Your task to perform on an android device: check android version Image 0: 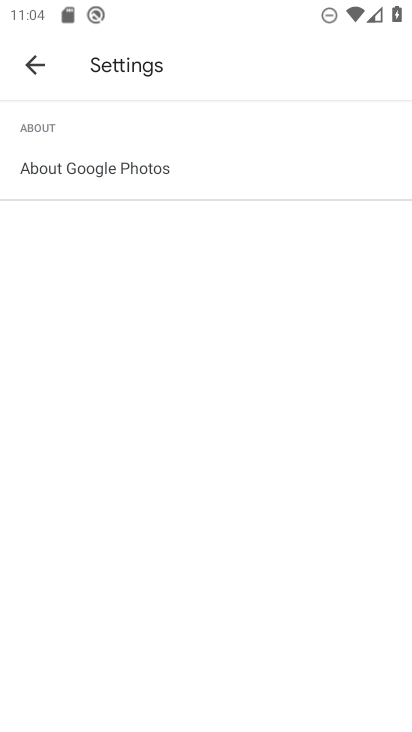
Step 0: press home button
Your task to perform on an android device: check android version Image 1: 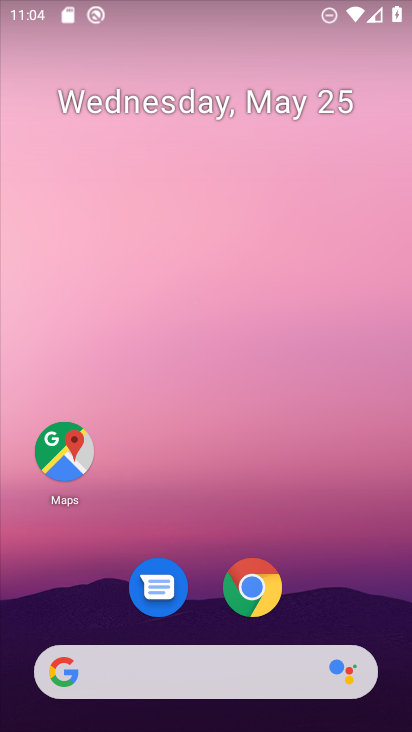
Step 1: drag from (333, 576) to (263, 0)
Your task to perform on an android device: check android version Image 2: 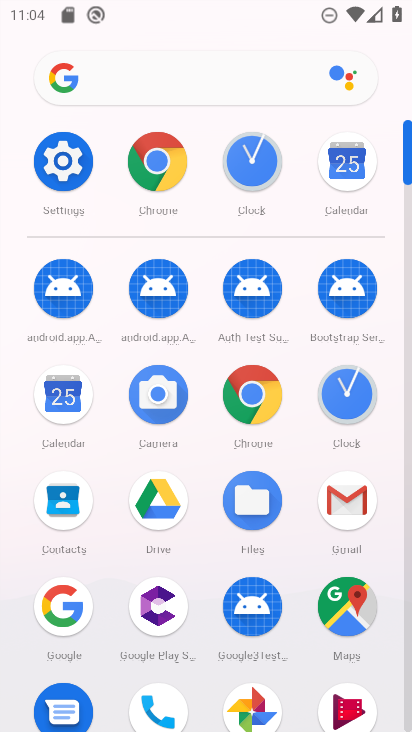
Step 2: click (61, 158)
Your task to perform on an android device: check android version Image 3: 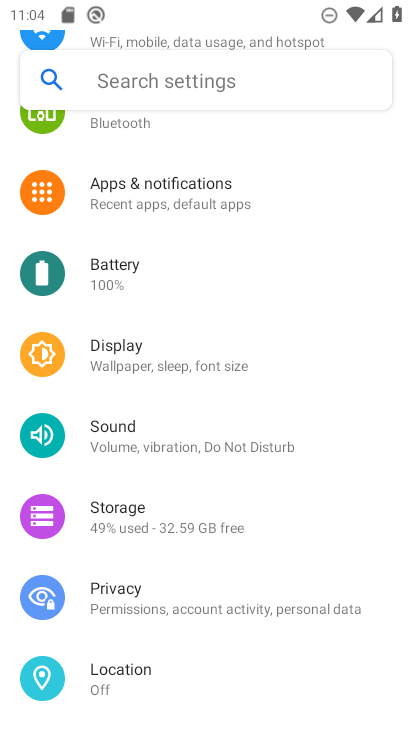
Step 3: drag from (163, 590) to (222, 126)
Your task to perform on an android device: check android version Image 4: 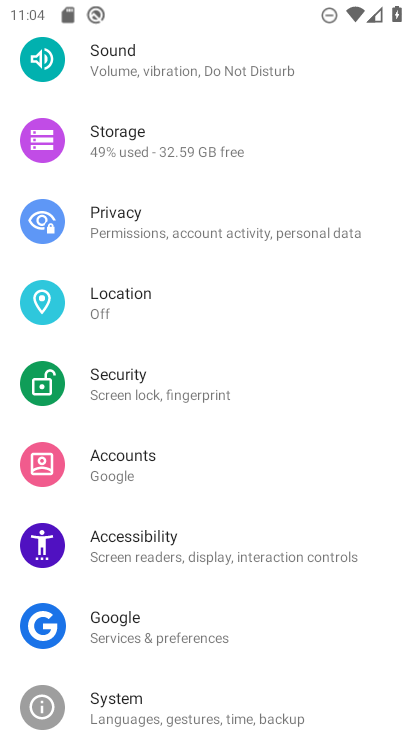
Step 4: drag from (238, 538) to (248, 148)
Your task to perform on an android device: check android version Image 5: 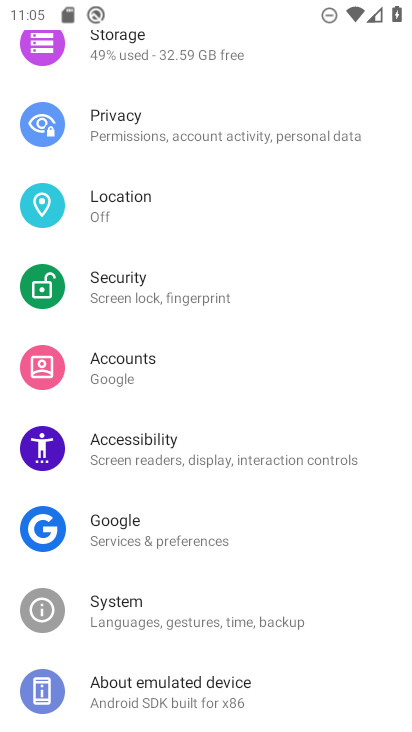
Step 5: click (117, 700)
Your task to perform on an android device: check android version Image 6: 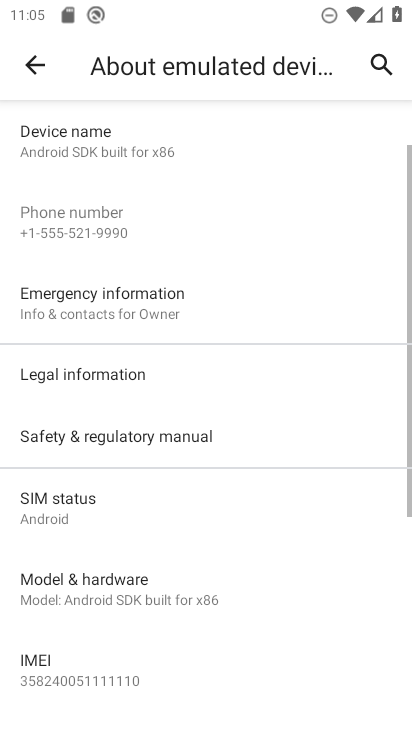
Step 6: task complete